Your task to perform on an android device: open a new tab in the chrome app Image 0: 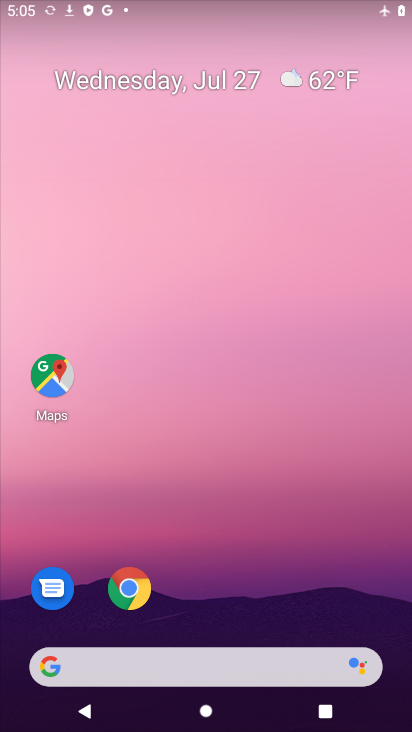
Step 0: click (125, 583)
Your task to perform on an android device: open a new tab in the chrome app Image 1: 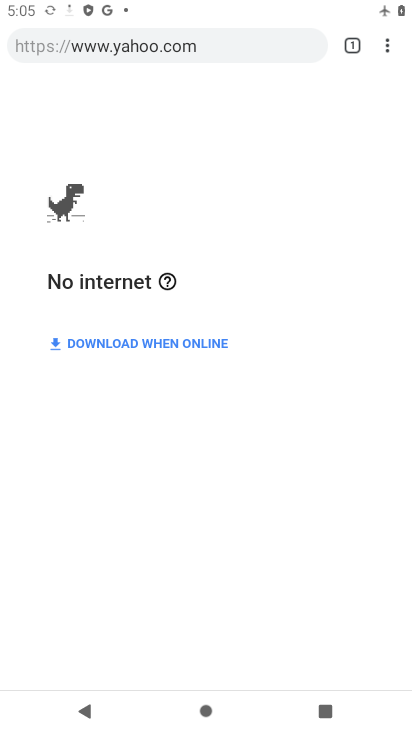
Step 1: click (346, 48)
Your task to perform on an android device: open a new tab in the chrome app Image 2: 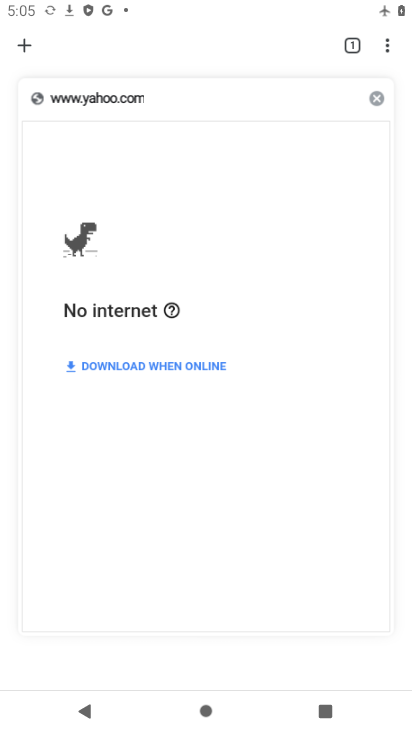
Step 2: click (22, 48)
Your task to perform on an android device: open a new tab in the chrome app Image 3: 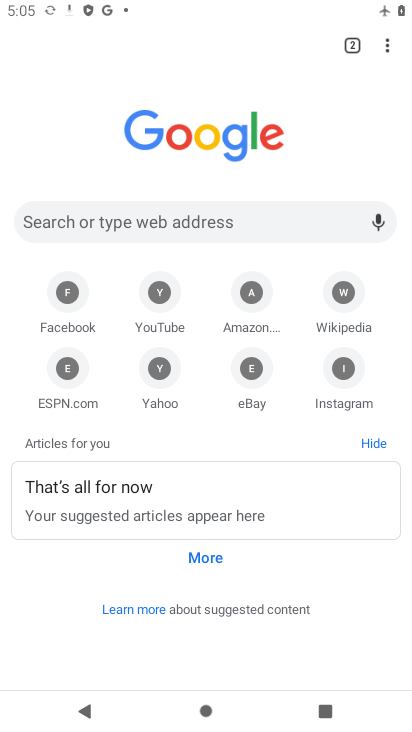
Step 3: task complete